Your task to perform on an android device: Open eBay Image 0: 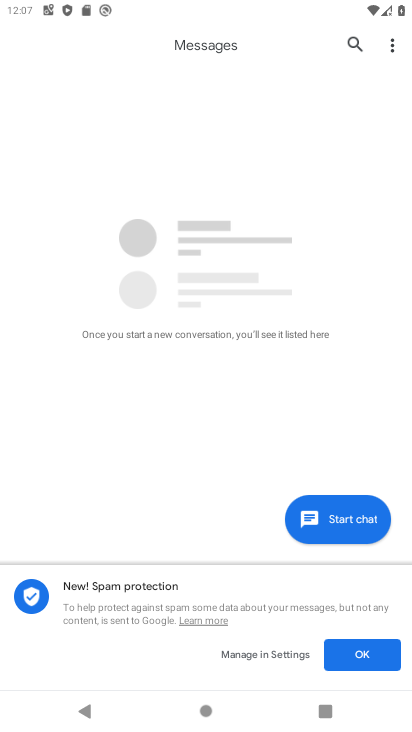
Step 0: press home button
Your task to perform on an android device: Open eBay Image 1: 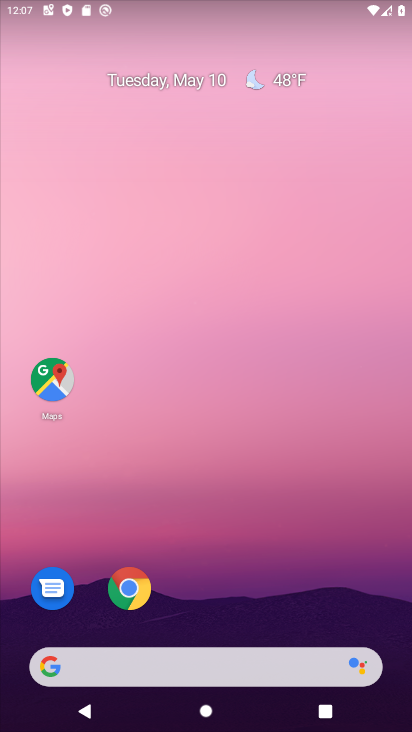
Step 1: click (126, 578)
Your task to perform on an android device: Open eBay Image 2: 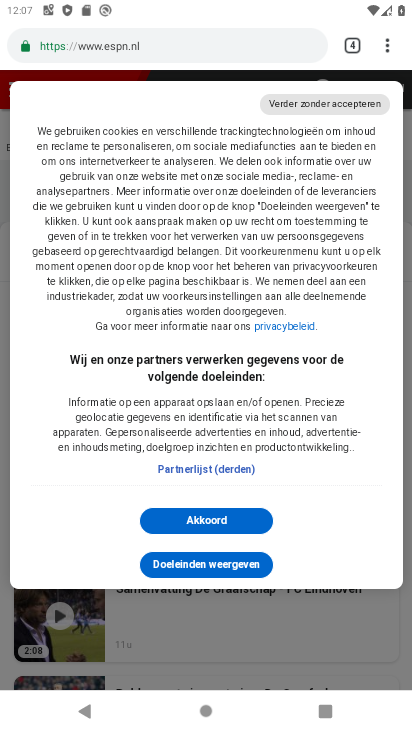
Step 2: click (370, 45)
Your task to perform on an android device: Open eBay Image 3: 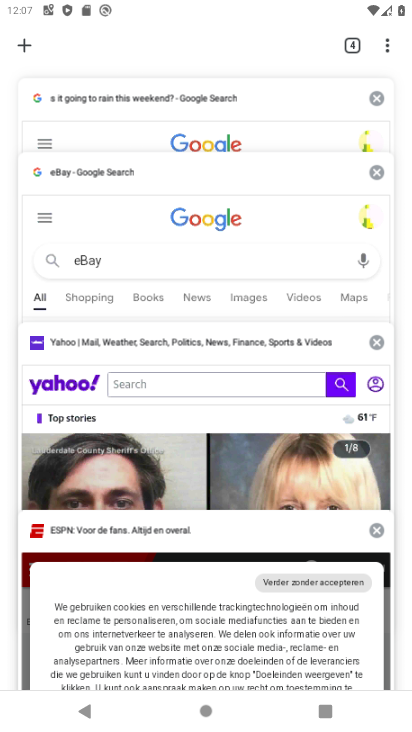
Step 3: click (182, 236)
Your task to perform on an android device: Open eBay Image 4: 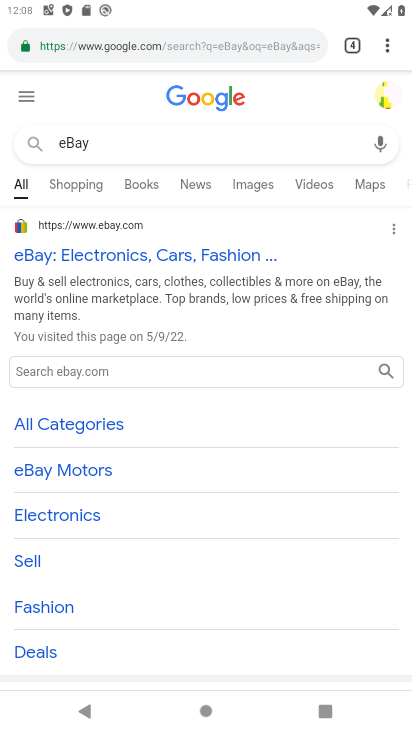
Step 4: task complete